Your task to perform on an android device: Open Maps and search for coffee Image 0: 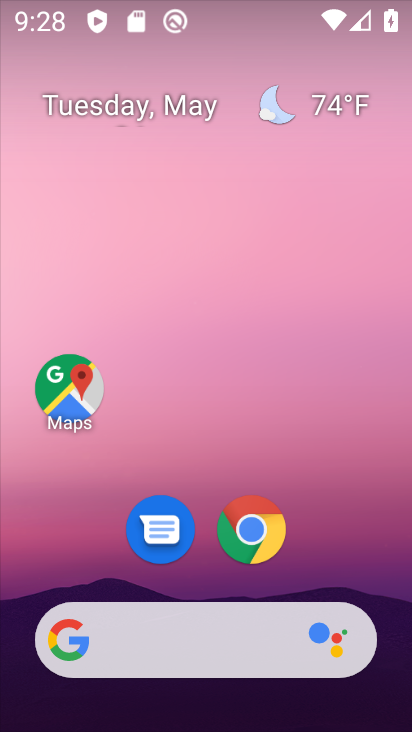
Step 0: click (67, 389)
Your task to perform on an android device: Open Maps and search for coffee Image 1: 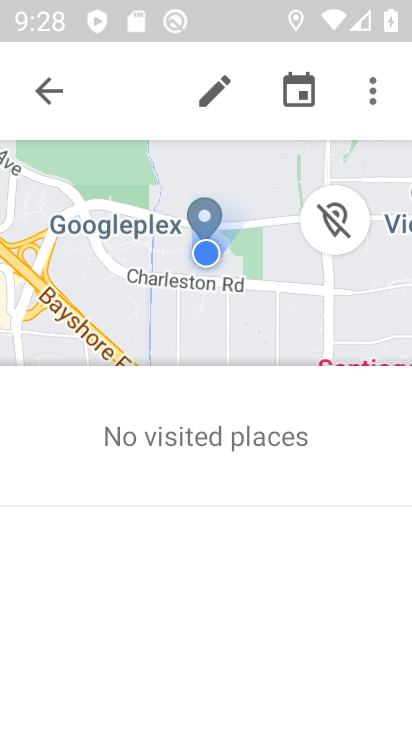
Step 1: click (208, 105)
Your task to perform on an android device: Open Maps and search for coffee Image 2: 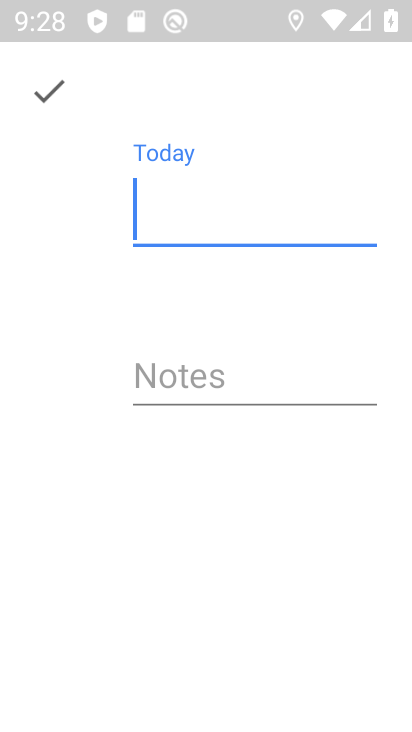
Step 2: click (32, 92)
Your task to perform on an android device: Open Maps and search for coffee Image 3: 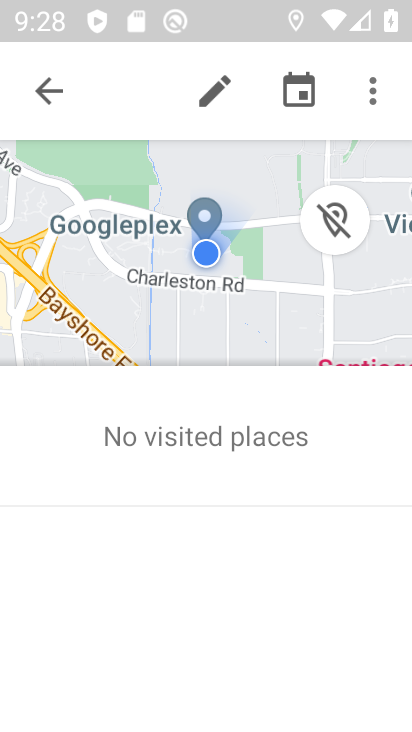
Step 3: click (32, 92)
Your task to perform on an android device: Open Maps and search for coffee Image 4: 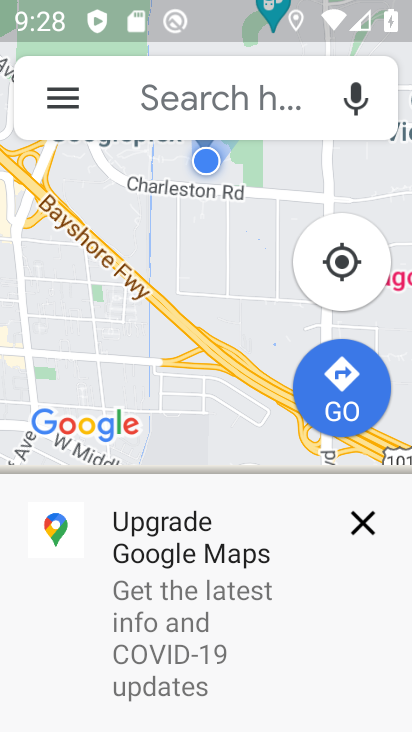
Step 4: click (188, 113)
Your task to perform on an android device: Open Maps and search for coffee Image 5: 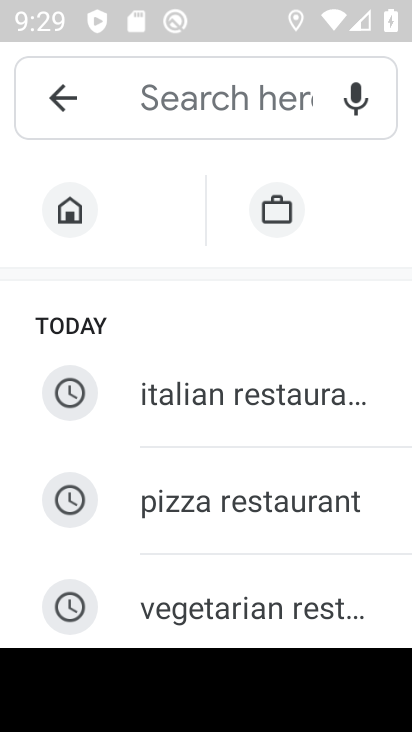
Step 5: type "coffee"
Your task to perform on an android device: Open Maps and search for coffee Image 6: 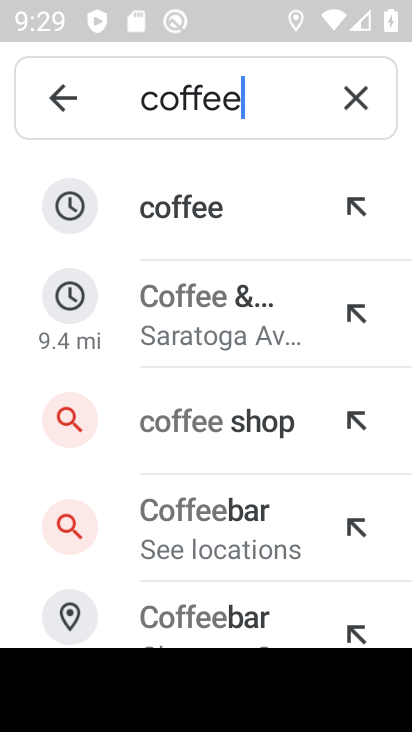
Step 6: click (191, 218)
Your task to perform on an android device: Open Maps and search for coffee Image 7: 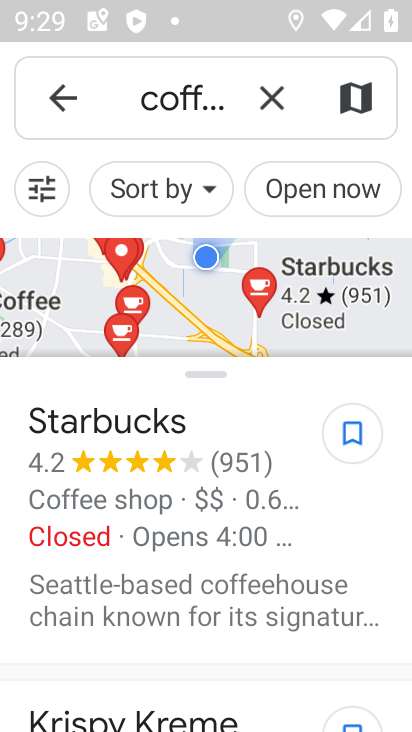
Step 7: task complete